Your task to perform on an android device: Open CNN.com Image 0: 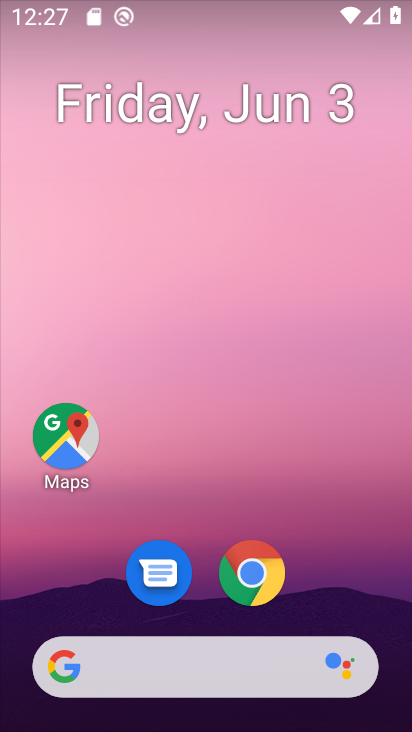
Step 0: click (267, 582)
Your task to perform on an android device: Open CNN.com Image 1: 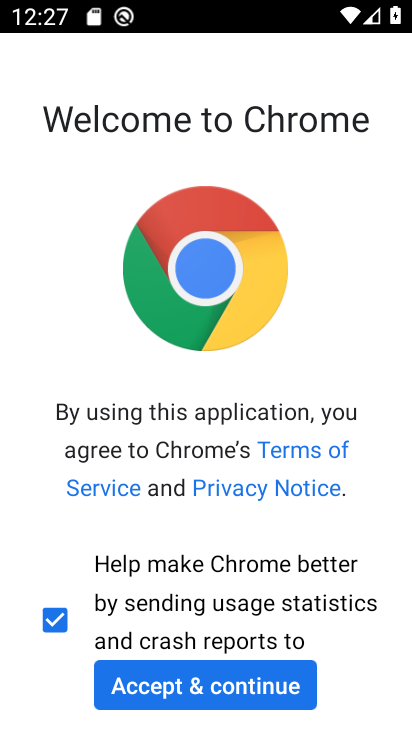
Step 1: click (248, 692)
Your task to perform on an android device: Open CNN.com Image 2: 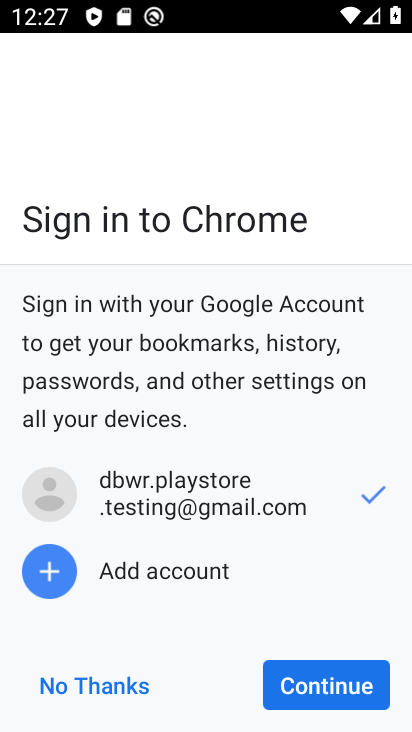
Step 2: click (340, 699)
Your task to perform on an android device: Open CNN.com Image 3: 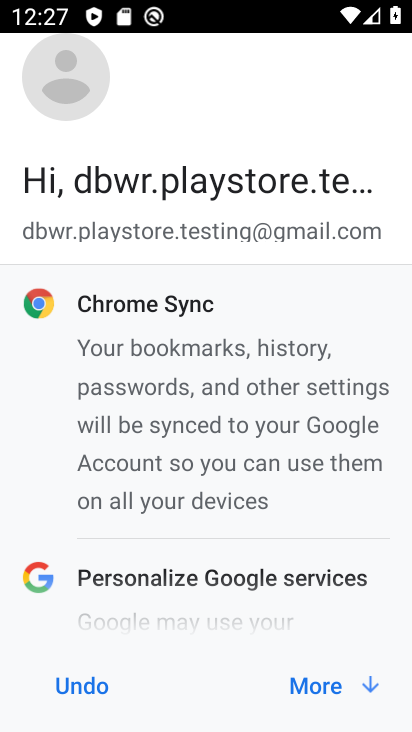
Step 3: click (326, 700)
Your task to perform on an android device: Open CNN.com Image 4: 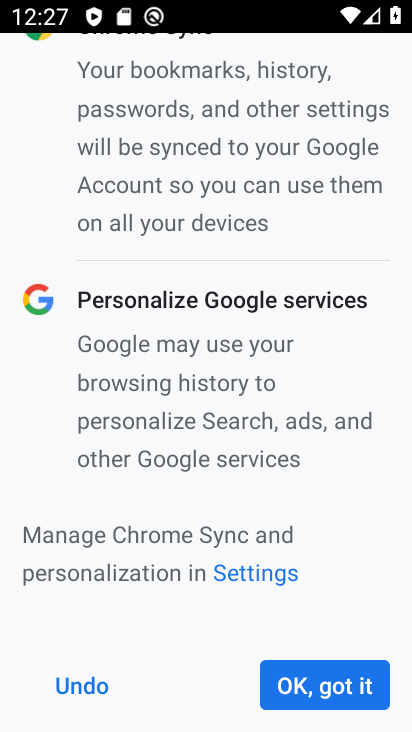
Step 4: click (322, 692)
Your task to perform on an android device: Open CNN.com Image 5: 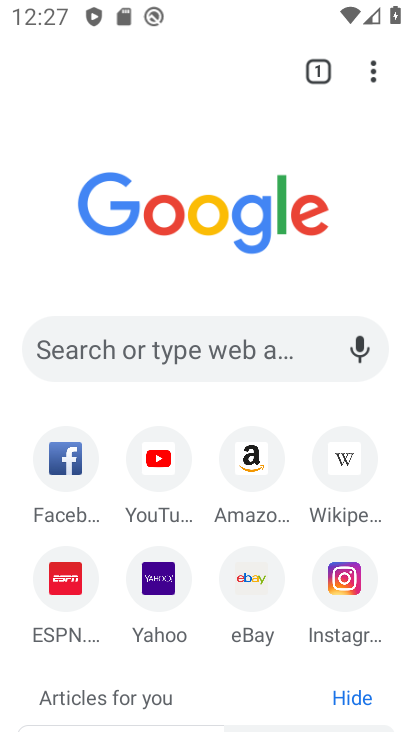
Step 5: click (200, 360)
Your task to perform on an android device: Open CNN.com Image 6: 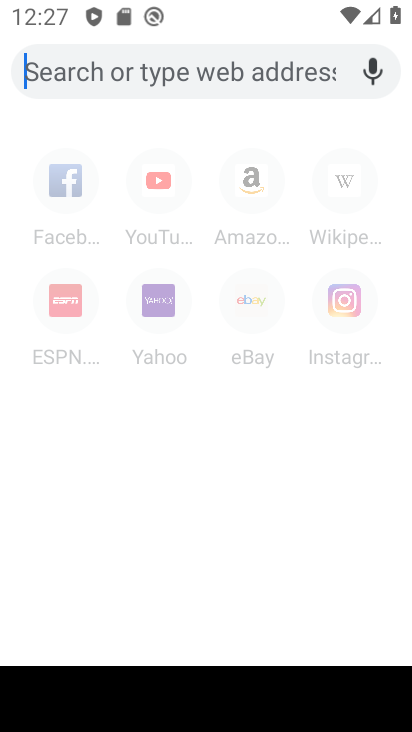
Step 6: type "Cnn.com"
Your task to perform on an android device: Open CNN.com Image 7: 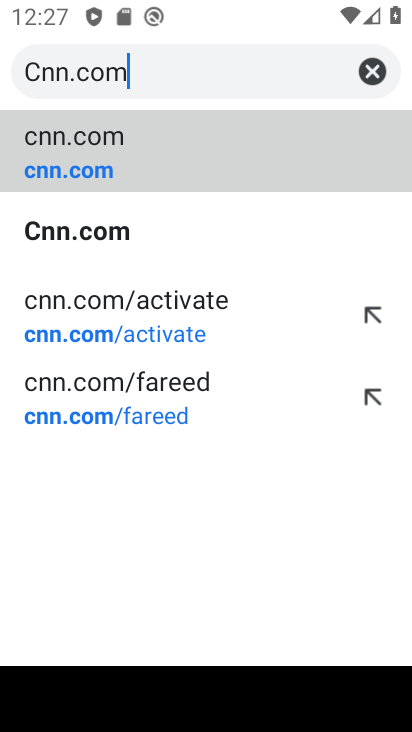
Step 7: click (137, 158)
Your task to perform on an android device: Open CNN.com Image 8: 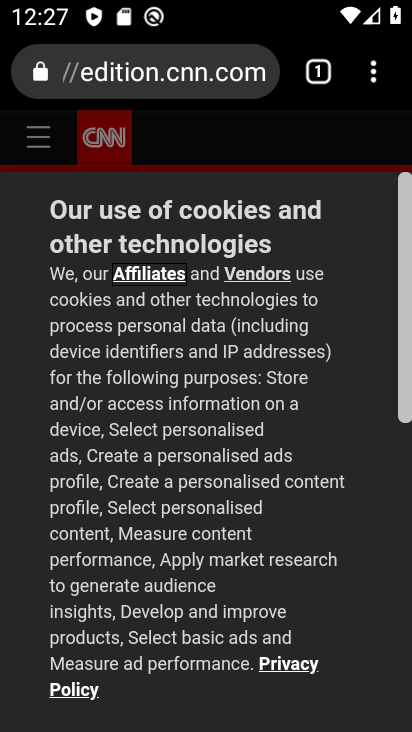
Step 8: drag from (399, 290) to (387, 694)
Your task to perform on an android device: Open CNN.com Image 9: 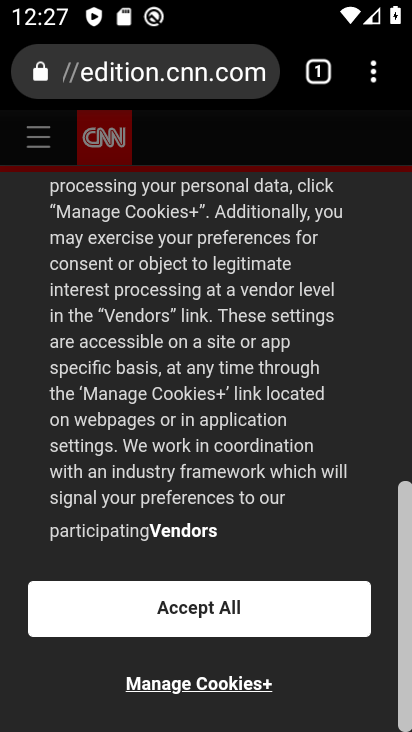
Step 9: click (251, 621)
Your task to perform on an android device: Open CNN.com Image 10: 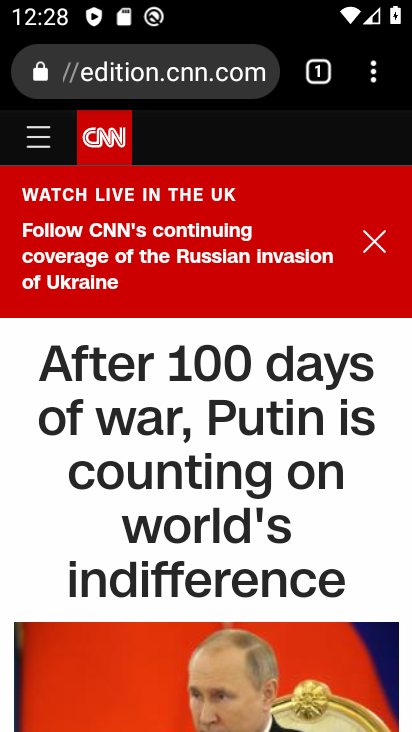
Step 10: task complete